Your task to perform on an android device: toggle priority inbox in the gmail app Image 0: 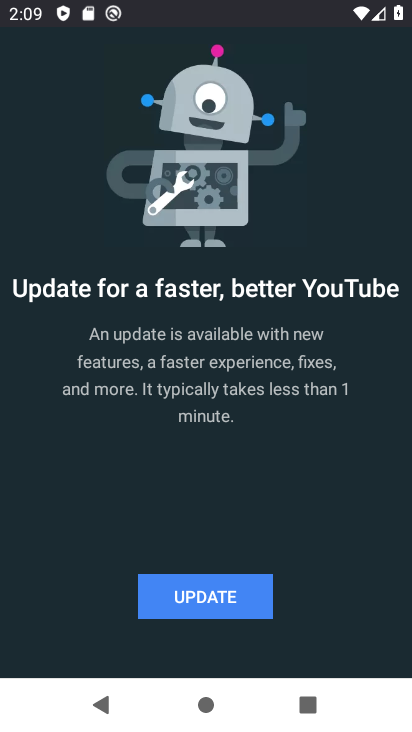
Step 0: press home button
Your task to perform on an android device: toggle priority inbox in the gmail app Image 1: 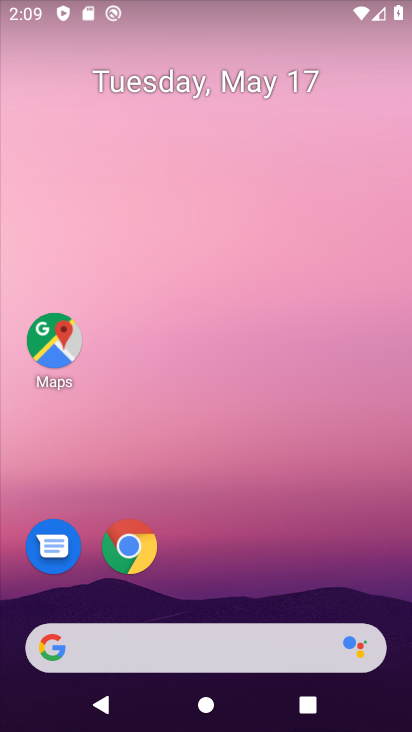
Step 1: drag from (249, 635) to (226, 109)
Your task to perform on an android device: toggle priority inbox in the gmail app Image 2: 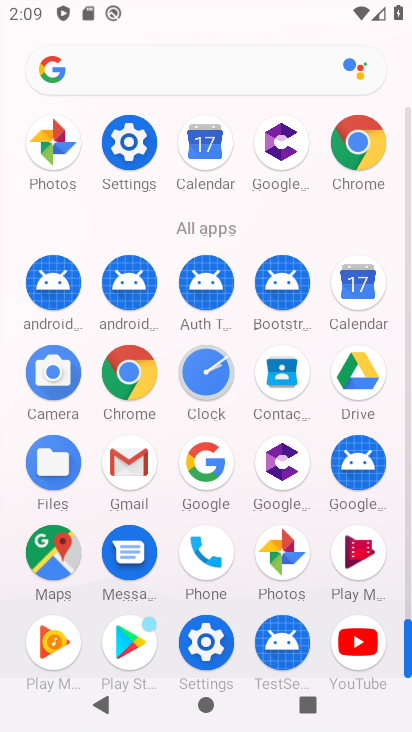
Step 2: click (133, 492)
Your task to perform on an android device: toggle priority inbox in the gmail app Image 3: 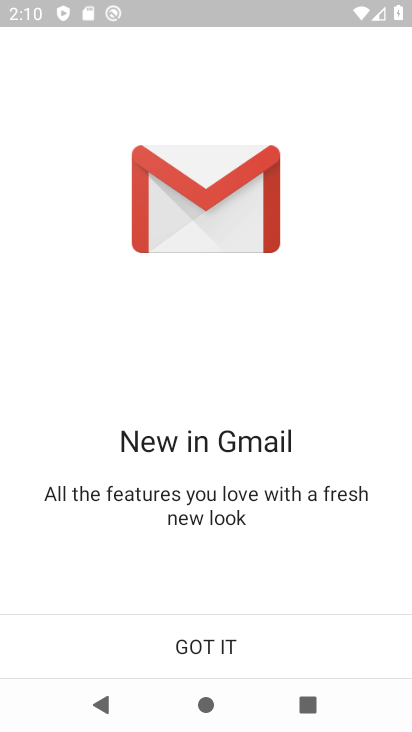
Step 3: click (187, 654)
Your task to perform on an android device: toggle priority inbox in the gmail app Image 4: 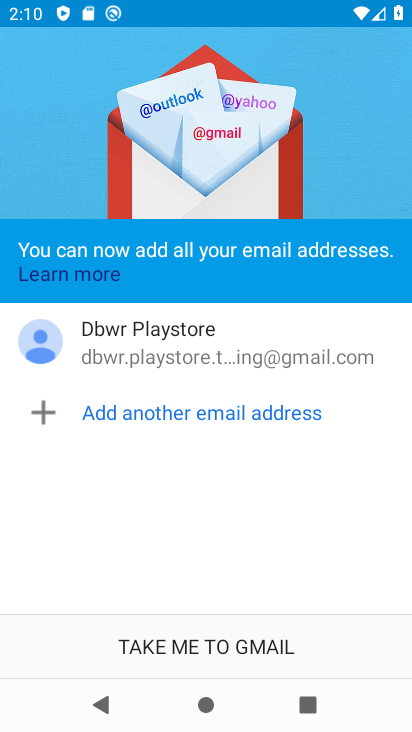
Step 4: click (168, 650)
Your task to perform on an android device: toggle priority inbox in the gmail app Image 5: 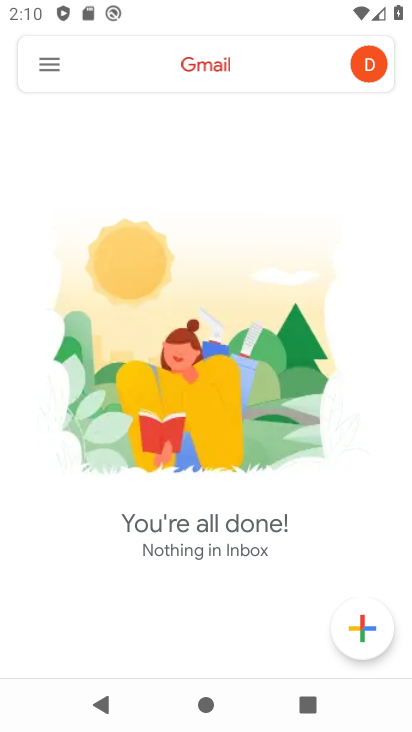
Step 5: click (46, 69)
Your task to perform on an android device: toggle priority inbox in the gmail app Image 6: 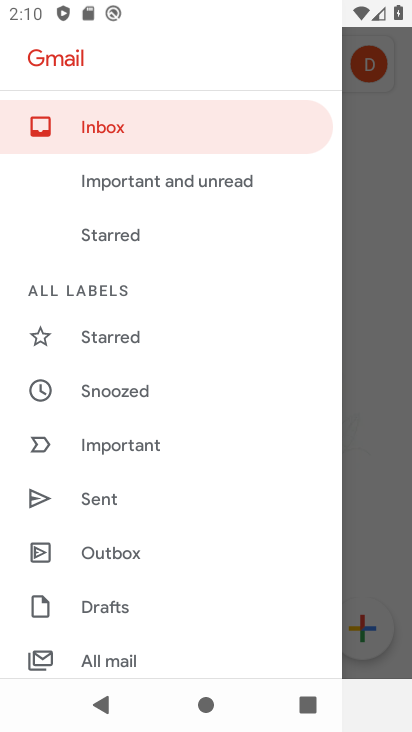
Step 6: drag from (148, 594) to (223, 170)
Your task to perform on an android device: toggle priority inbox in the gmail app Image 7: 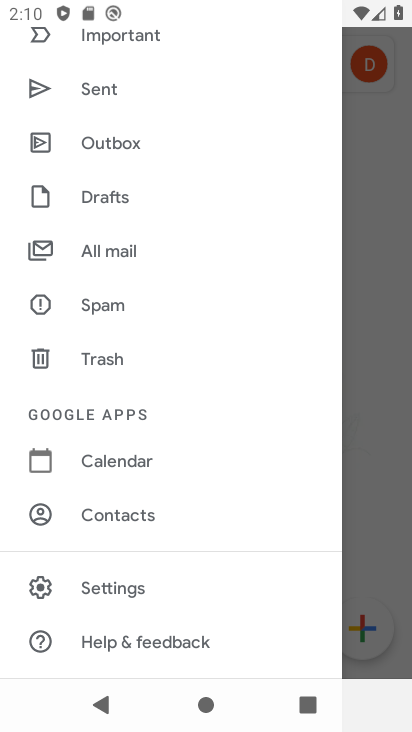
Step 7: click (126, 591)
Your task to perform on an android device: toggle priority inbox in the gmail app Image 8: 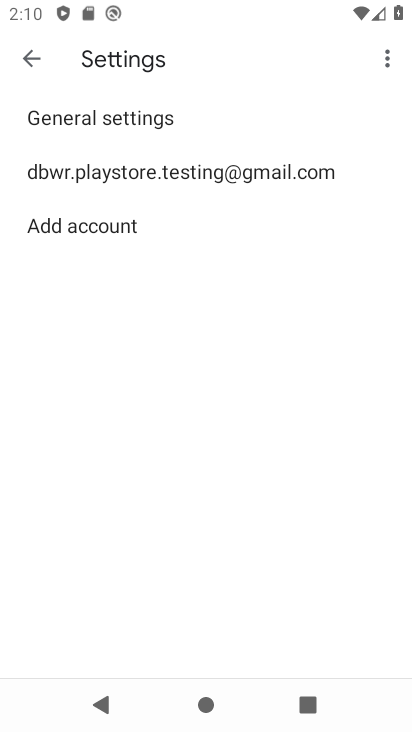
Step 8: click (238, 147)
Your task to perform on an android device: toggle priority inbox in the gmail app Image 9: 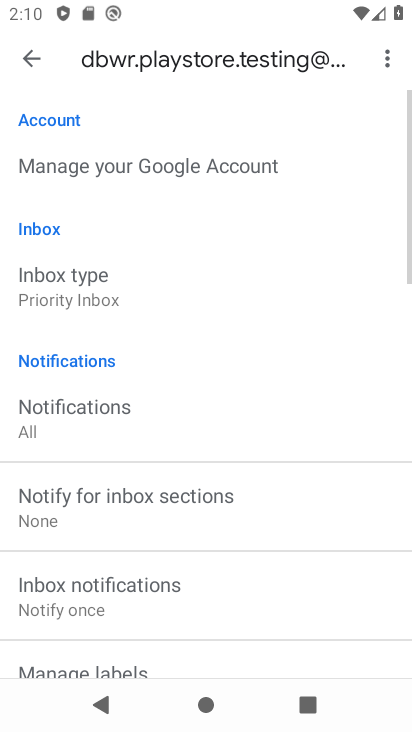
Step 9: click (78, 304)
Your task to perform on an android device: toggle priority inbox in the gmail app Image 10: 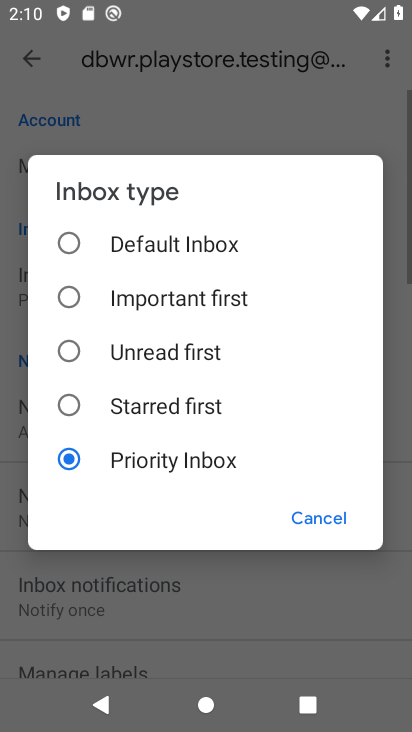
Step 10: click (66, 345)
Your task to perform on an android device: toggle priority inbox in the gmail app Image 11: 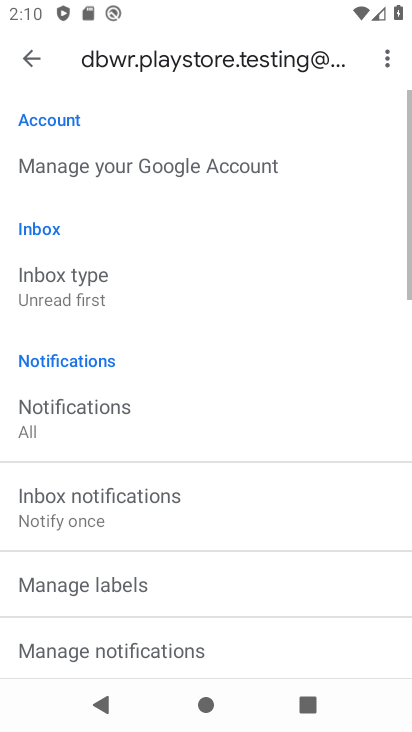
Step 11: task complete